Your task to perform on an android device: turn on improve location accuracy Image 0: 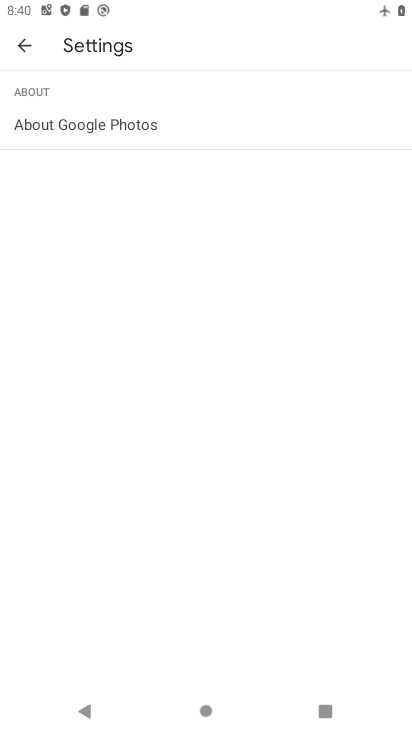
Step 0: press home button
Your task to perform on an android device: turn on improve location accuracy Image 1: 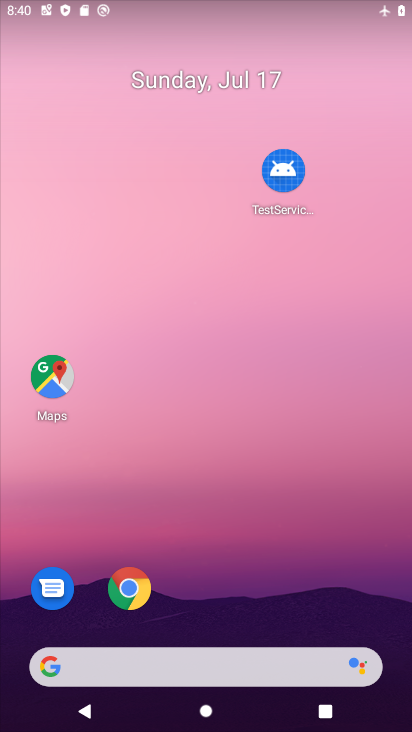
Step 1: drag from (207, 715) to (262, 44)
Your task to perform on an android device: turn on improve location accuracy Image 2: 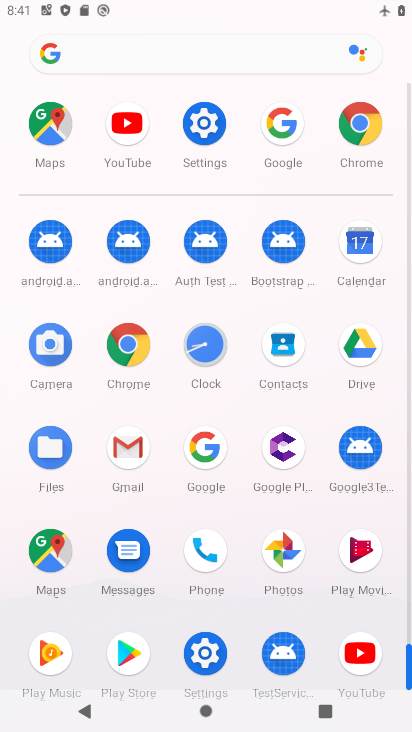
Step 2: click (203, 163)
Your task to perform on an android device: turn on improve location accuracy Image 3: 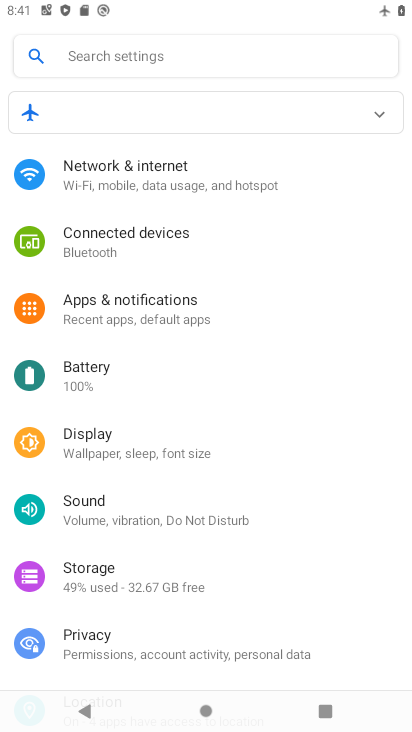
Step 3: drag from (163, 610) to (199, 274)
Your task to perform on an android device: turn on improve location accuracy Image 4: 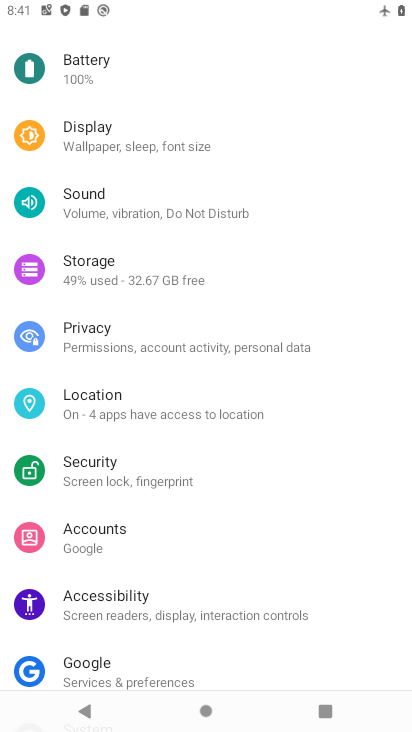
Step 4: click (203, 407)
Your task to perform on an android device: turn on improve location accuracy Image 5: 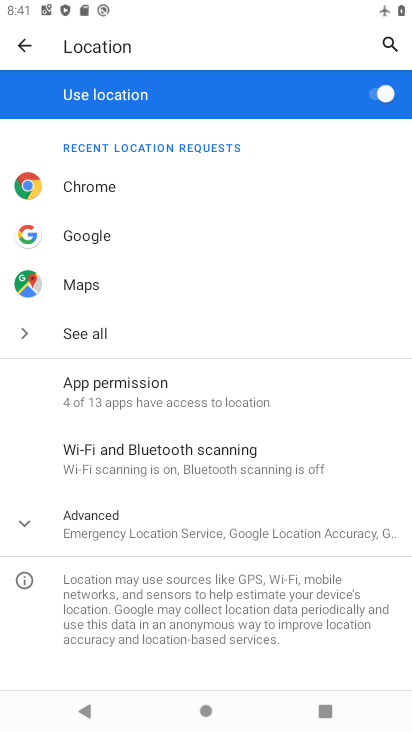
Step 5: click (178, 534)
Your task to perform on an android device: turn on improve location accuracy Image 6: 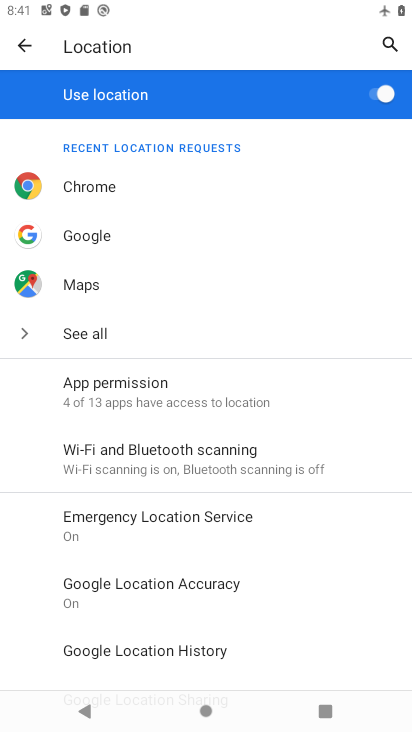
Step 6: drag from (211, 602) to (242, 407)
Your task to perform on an android device: turn on improve location accuracy Image 7: 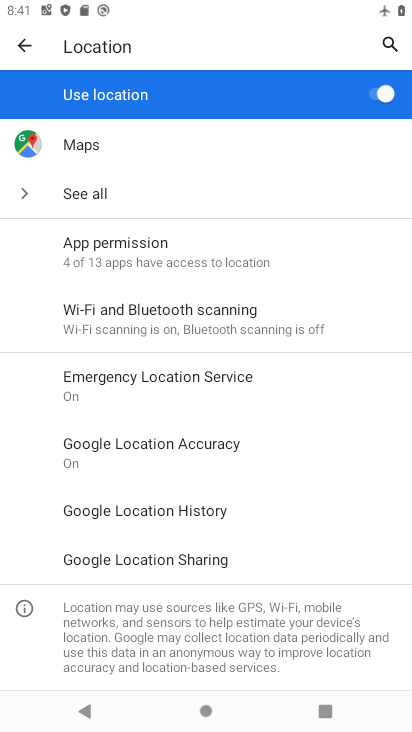
Step 7: click (191, 452)
Your task to perform on an android device: turn on improve location accuracy Image 8: 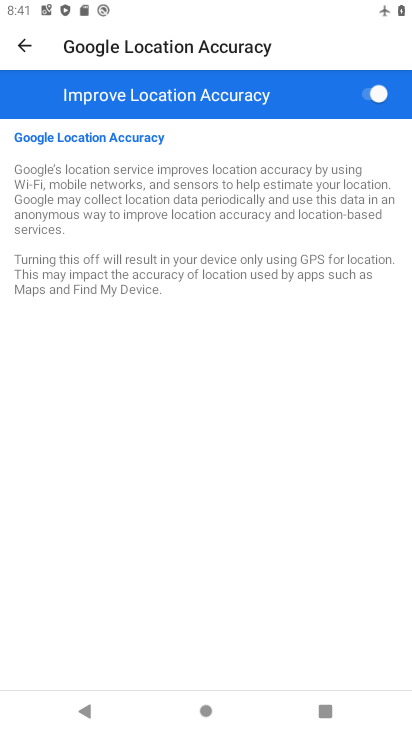
Step 8: task complete